Your task to perform on an android device: Go to Google maps Image 0: 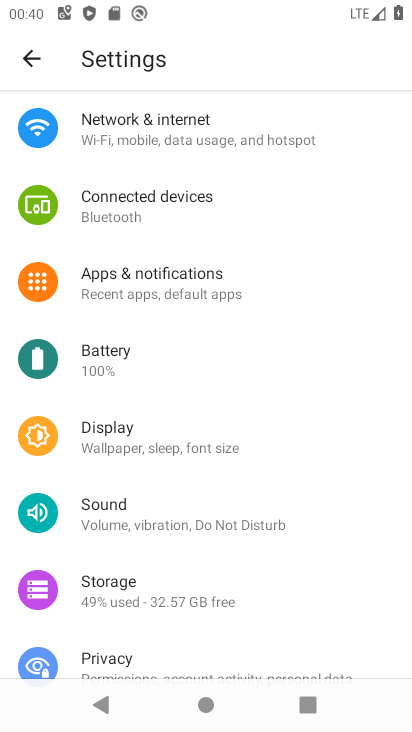
Step 0: drag from (184, 585) to (349, 199)
Your task to perform on an android device: Go to Google maps Image 1: 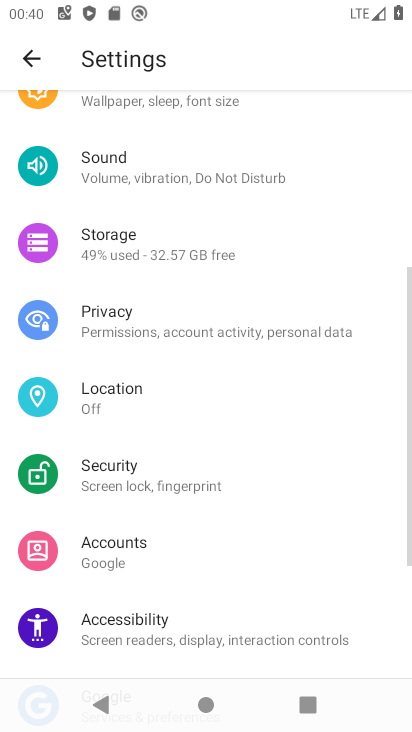
Step 1: press home button
Your task to perform on an android device: Go to Google maps Image 2: 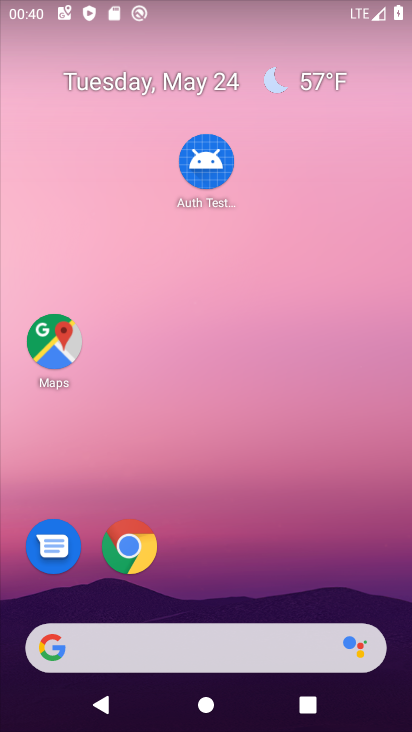
Step 2: drag from (202, 601) to (272, 59)
Your task to perform on an android device: Go to Google maps Image 3: 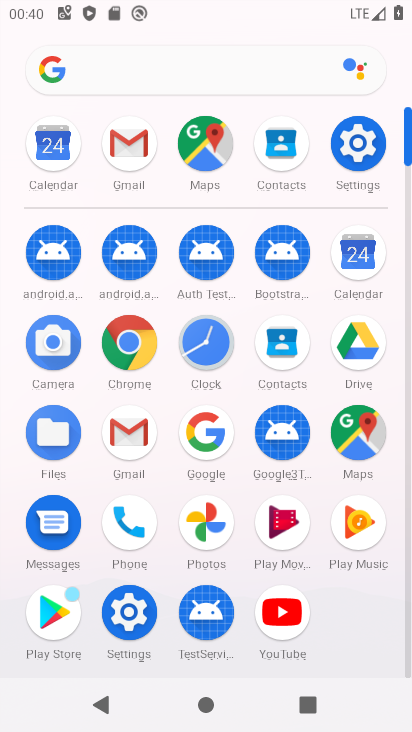
Step 3: click (349, 434)
Your task to perform on an android device: Go to Google maps Image 4: 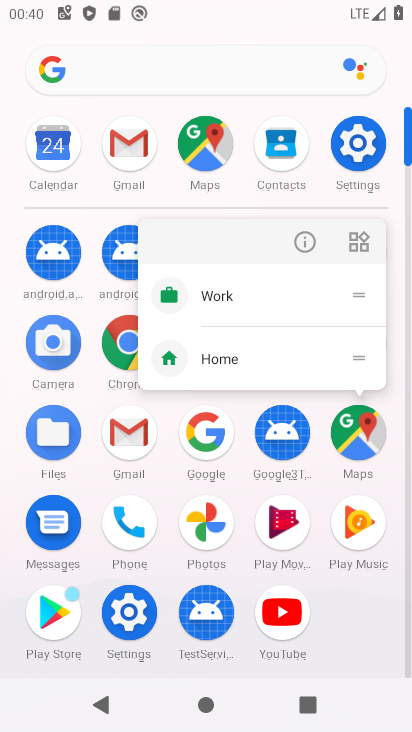
Step 4: click (305, 251)
Your task to perform on an android device: Go to Google maps Image 5: 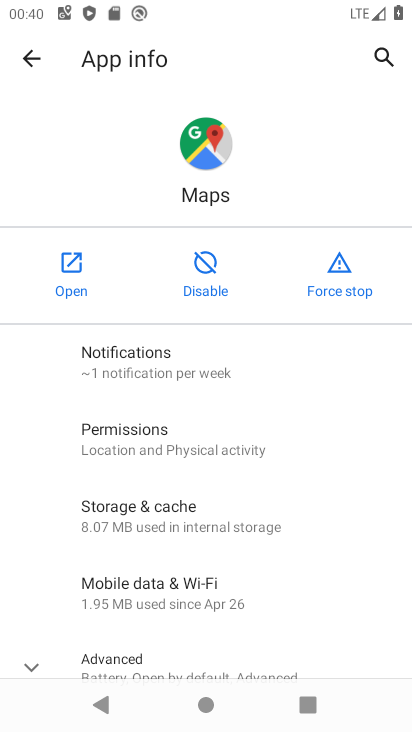
Step 5: click (85, 282)
Your task to perform on an android device: Go to Google maps Image 6: 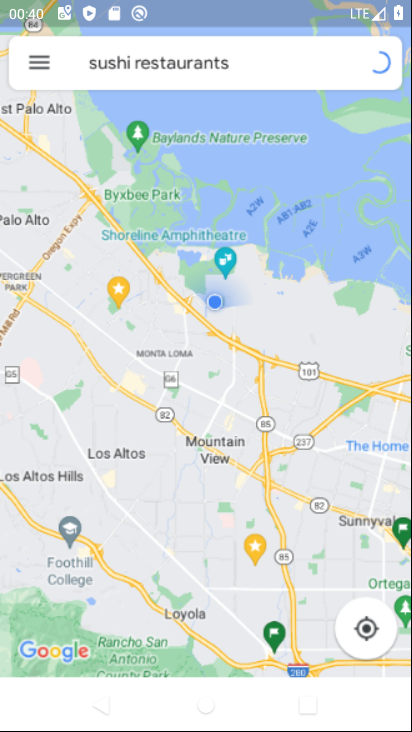
Step 6: task complete